Your task to perform on an android device: Toggle the flashlight Image 0: 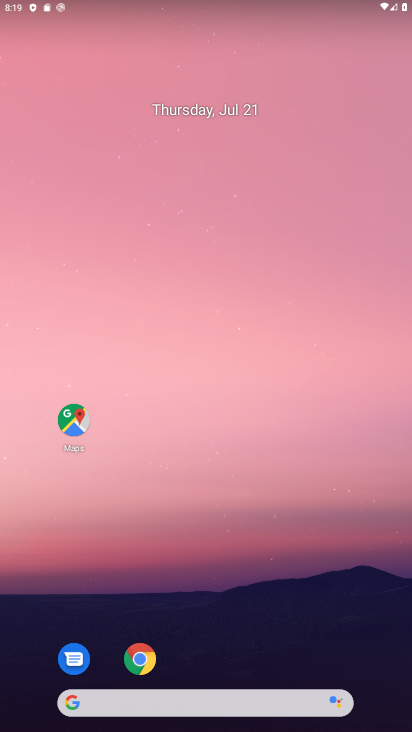
Step 0: drag from (263, 214) to (290, 63)
Your task to perform on an android device: Toggle the flashlight Image 1: 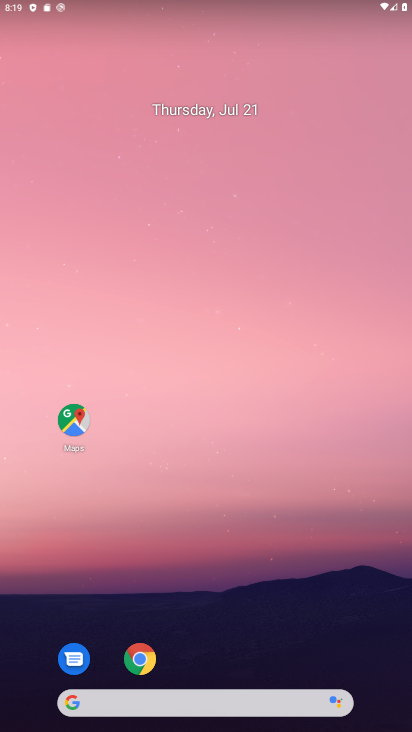
Step 1: task complete